Your task to perform on an android device: Show me popular videos on Youtube Image 0: 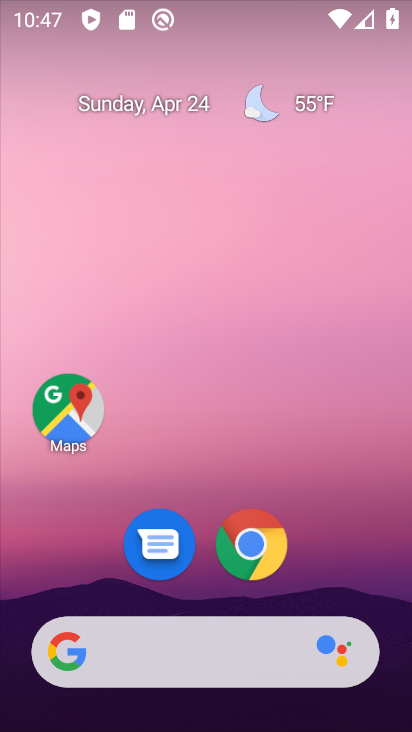
Step 0: drag from (354, 494) to (306, 151)
Your task to perform on an android device: Show me popular videos on Youtube Image 1: 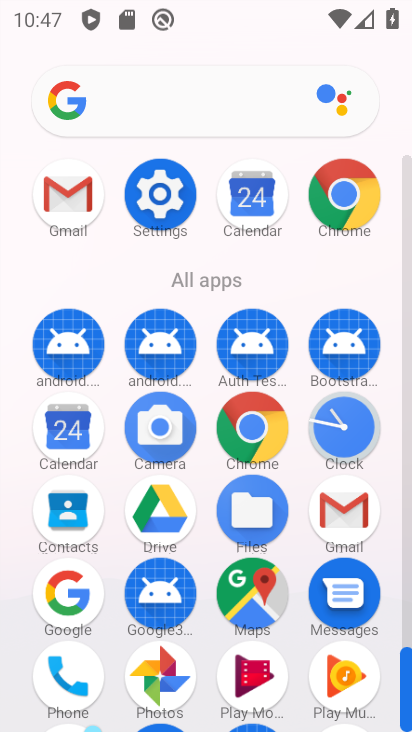
Step 1: drag from (116, 635) to (120, 190)
Your task to perform on an android device: Show me popular videos on Youtube Image 2: 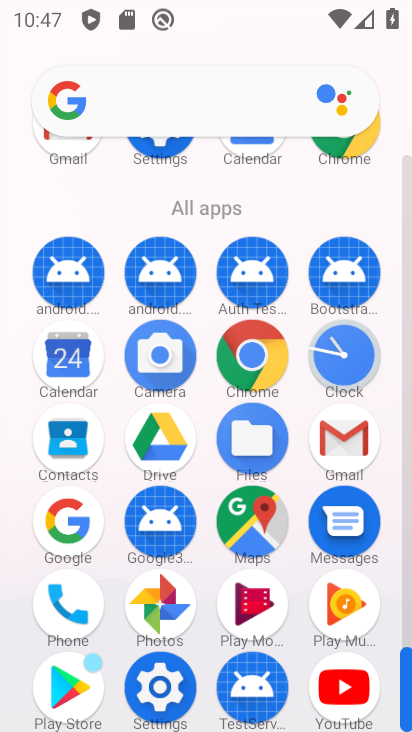
Step 2: click (337, 692)
Your task to perform on an android device: Show me popular videos on Youtube Image 3: 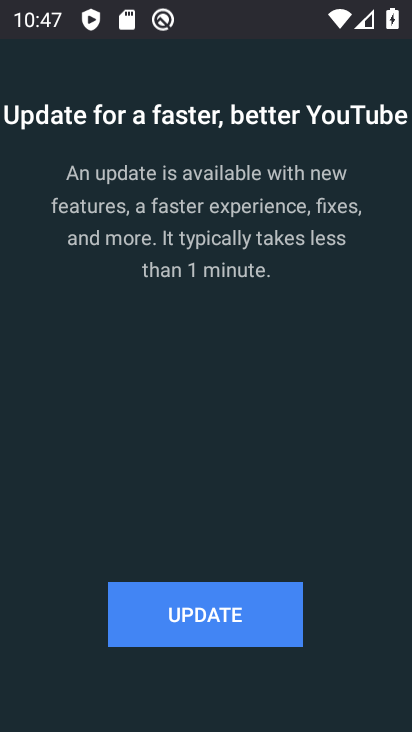
Step 3: click (251, 636)
Your task to perform on an android device: Show me popular videos on Youtube Image 4: 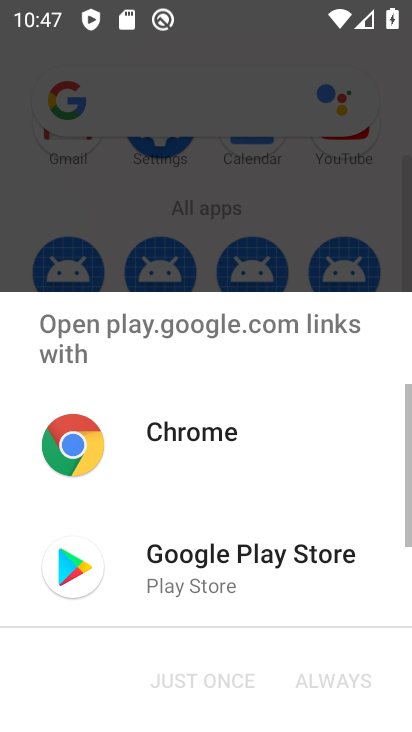
Step 4: click (220, 582)
Your task to perform on an android device: Show me popular videos on Youtube Image 5: 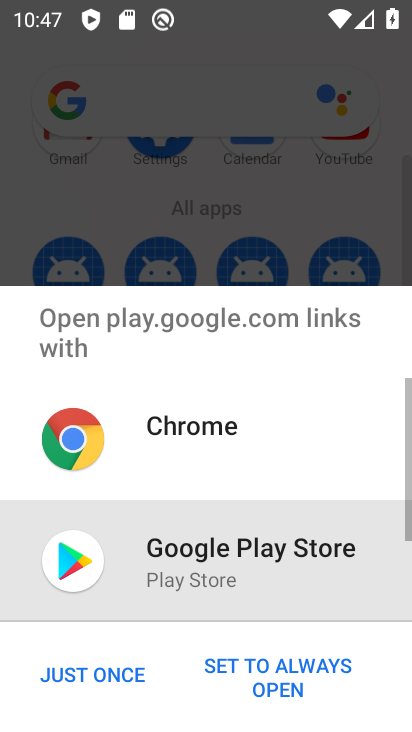
Step 5: click (85, 666)
Your task to perform on an android device: Show me popular videos on Youtube Image 6: 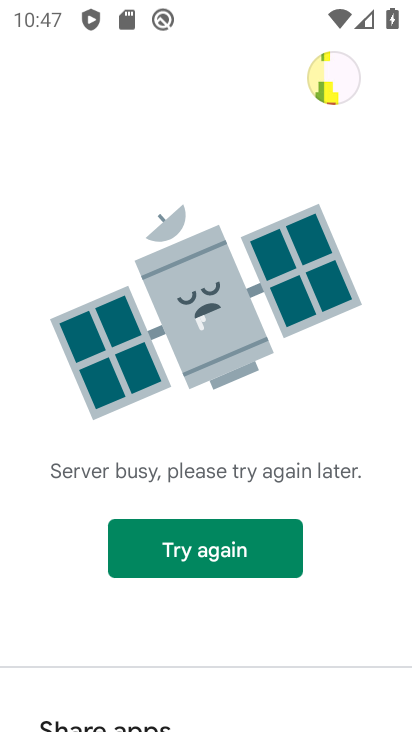
Step 6: click (187, 563)
Your task to perform on an android device: Show me popular videos on Youtube Image 7: 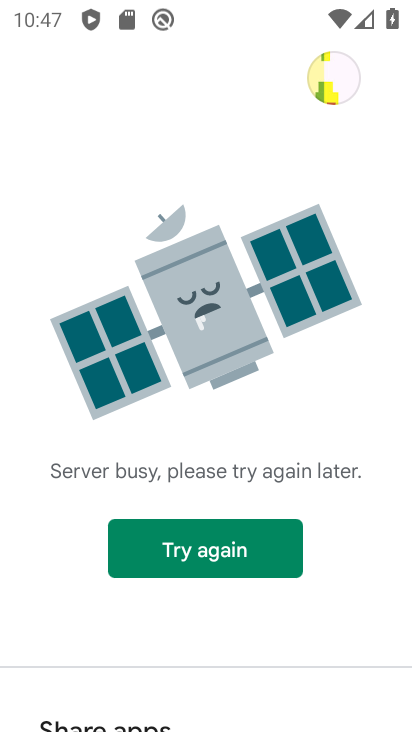
Step 7: click (187, 563)
Your task to perform on an android device: Show me popular videos on Youtube Image 8: 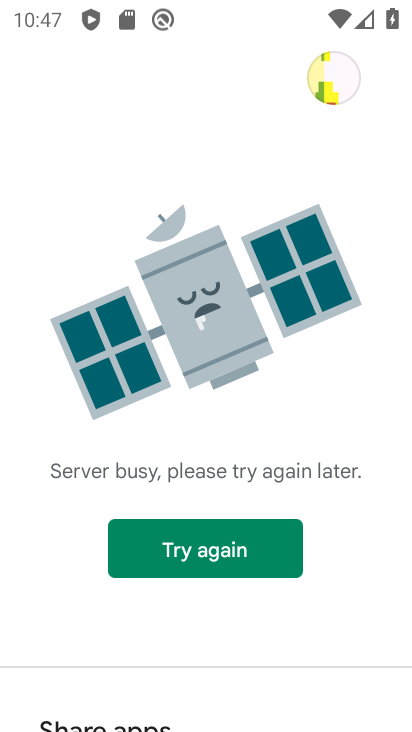
Step 8: press back button
Your task to perform on an android device: Show me popular videos on Youtube Image 9: 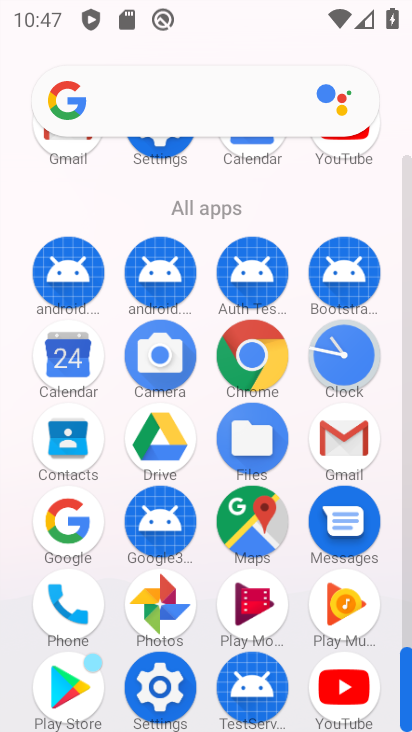
Step 9: click (352, 687)
Your task to perform on an android device: Show me popular videos on Youtube Image 10: 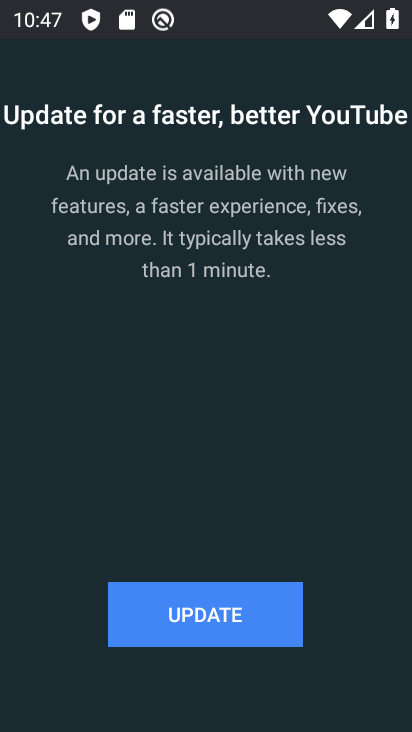
Step 10: task complete